Your task to perform on an android device: turn pop-ups off in chrome Image 0: 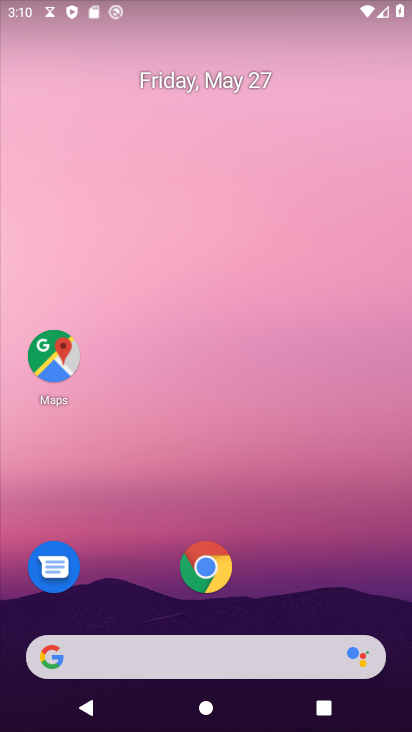
Step 0: click (205, 557)
Your task to perform on an android device: turn pop-ups off in chrome Image 1: 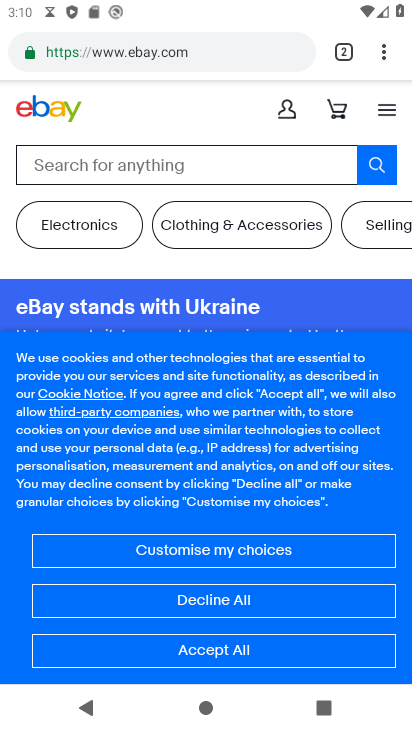
Step 1: drag from (386, 41) to (224, 620)
Your task to perform on an android device: turn pop-ups off in chrome Image 2: 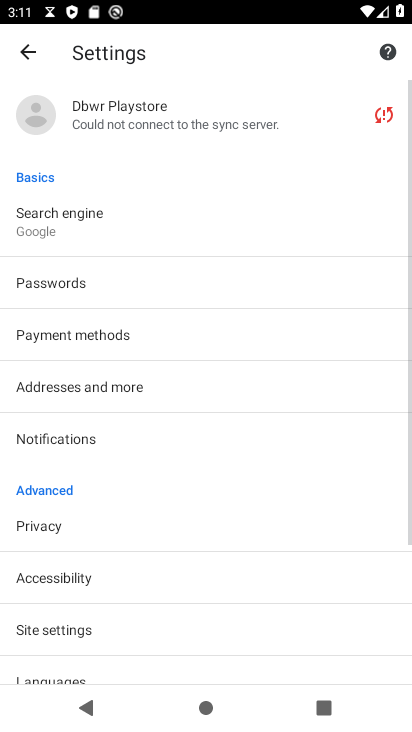
Step 2: click (44, 640)
Your task to perform on an android device: turn pop-ups off in chrome Image 3: 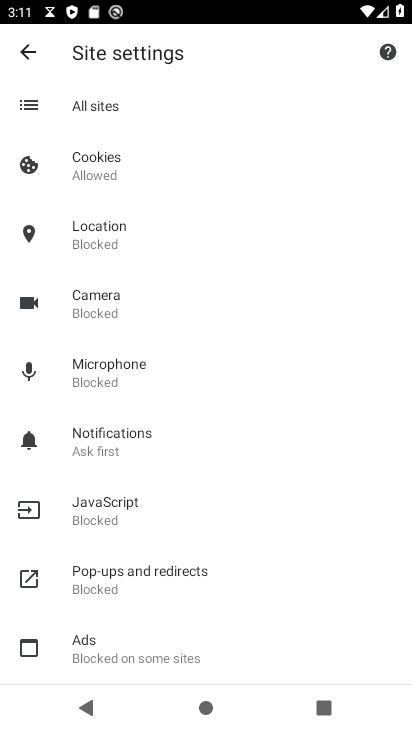
Step 3: click (111, 571)
Your task to perform on an android device: turn pop-ups off in chrome Image 4: 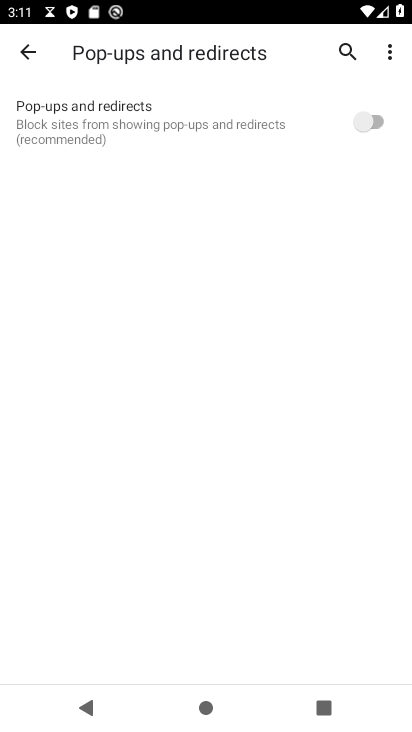
Step 4: task complete